Your task to perform on an android device: Go to Amazon Image 0: 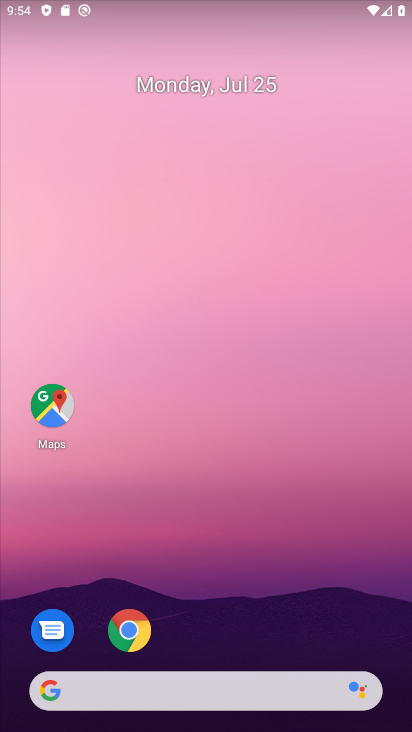
Step 0: drag from (172, 664) to (268, 0)
Your task to perform on an android device: Go to Amazon Image 1: 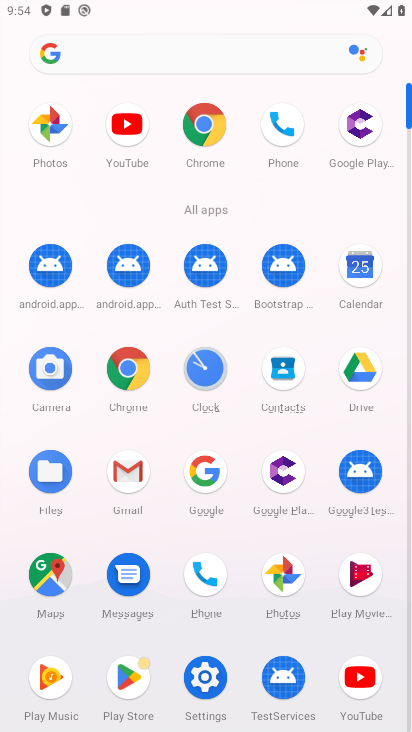
Step 1: click (134, 382)
Your task to perform on an android device: Go to Amazon Image 2: 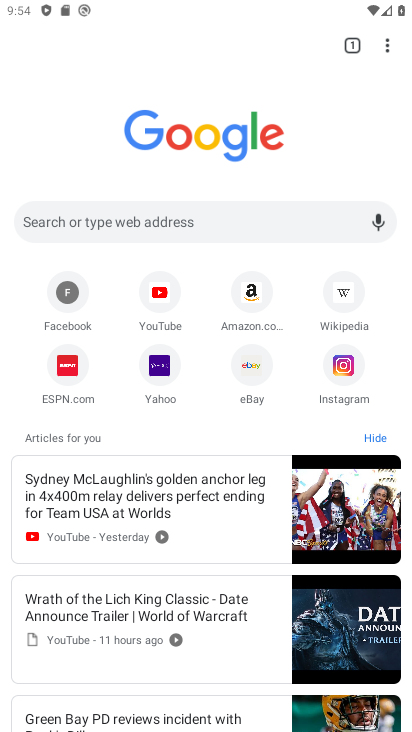
Step 2: click (257, 298)
Your task to perform on an android device: Go to Amazon Image 3: 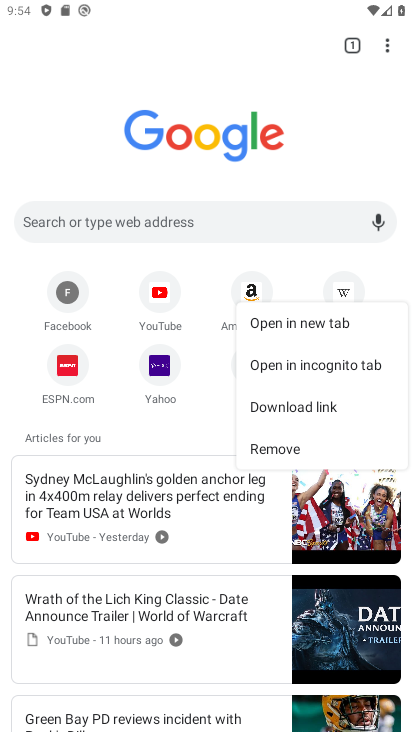
Step 3: click (249, 274)
Your task to perform on an android device: Go to Amazon Image 4: 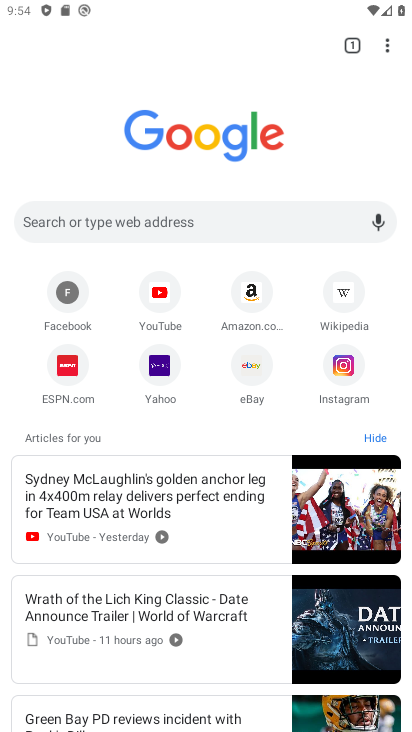
Step 4: click (242, 286)
Your task to perform on an android device: Go to Amazon Image 5: 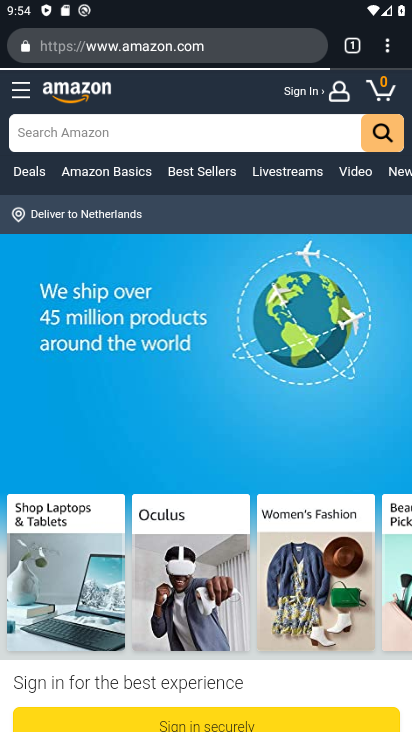
Step 5: task complete